Your task to perform on an android device: Is it going to rain today? Image 0: 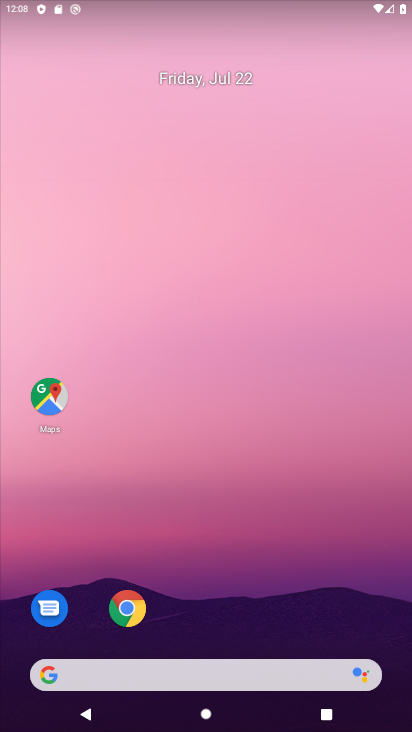
Step 0: click (205, 675)
Your task to perform on an android device: Is it going to rain today? Image 1: 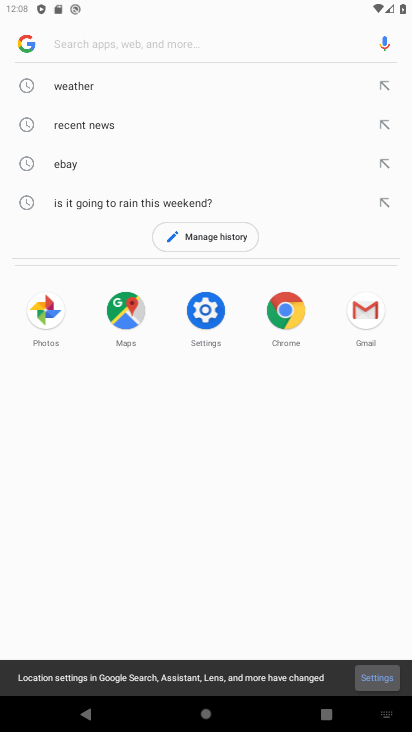
Step 1: click (81, 80)
Your task to perform on an android device: Is it going to rain today? Image 2: 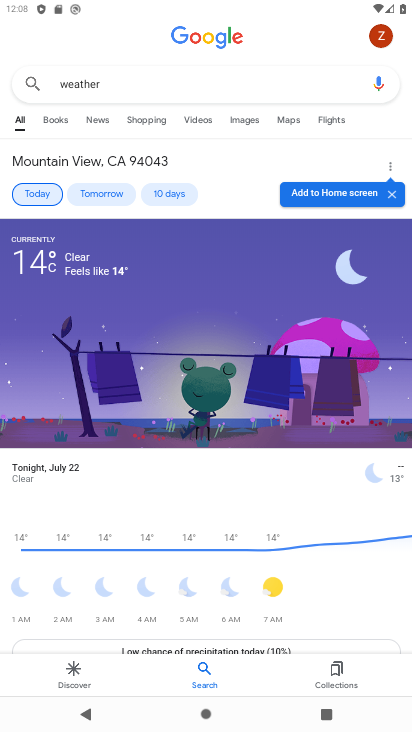
Step 2: task complete